Your task to perform on an android device: See recent photos Image 0: 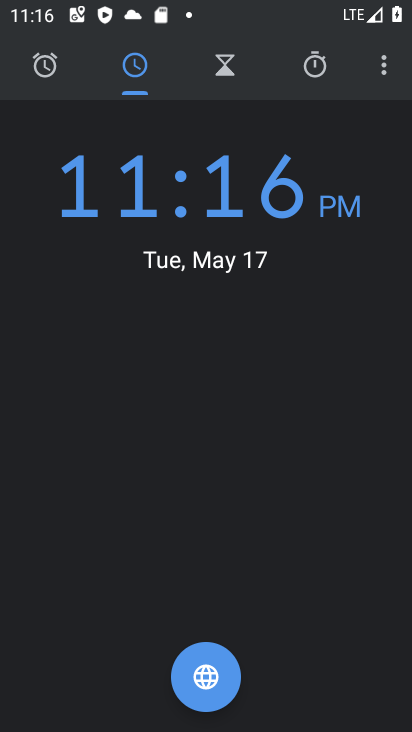
Step 0: press home button
Your task to perform on an android device: See recent photos Image 1: 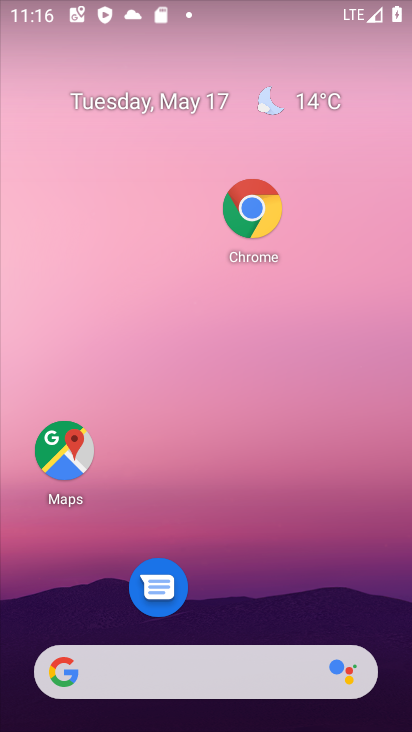
Step 1: drag from (279, 579) to (288, 131)
Your task to perform on an android device: See recent photos Image 2: 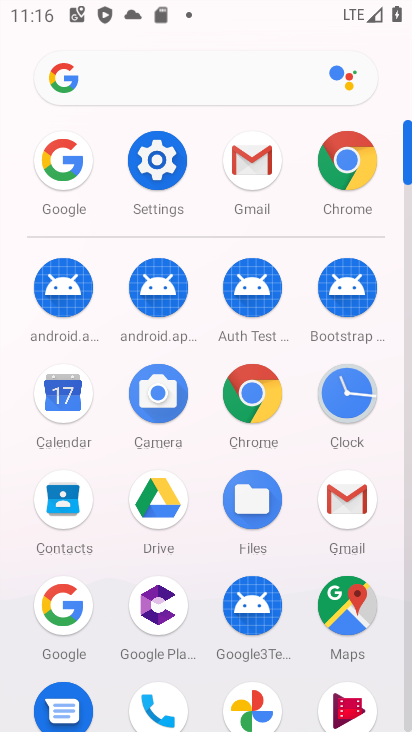
Step 2: click (260, 690)
Your task to perform on an android device: See recent photos Image 3: 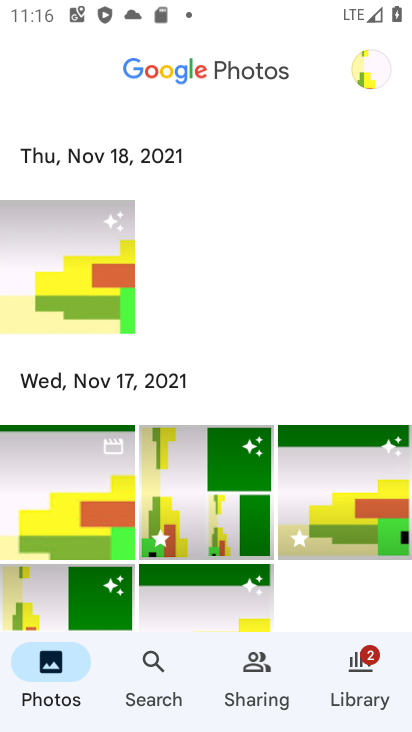
Step 3: click (151, 678)
Your task to perform on an android device: See recent photos Image 4: 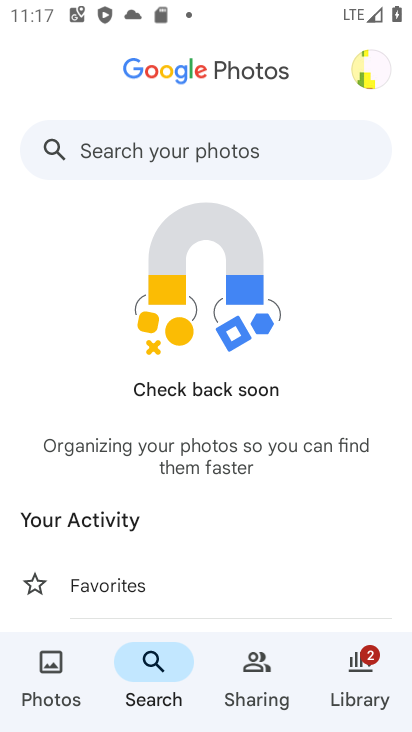
Step 4: drag from (199, 539) to (238, 263)
Your task to perform on an android device: See recent photos Image 5: 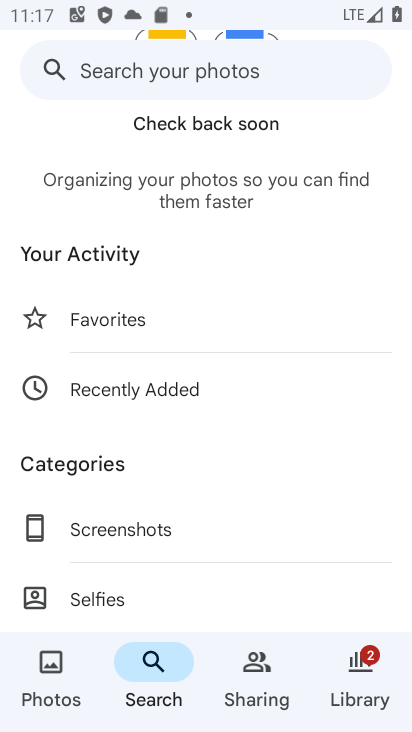
Step 5: click (166, 379)
Your task to perform on an android device: See recent photos Image 6: 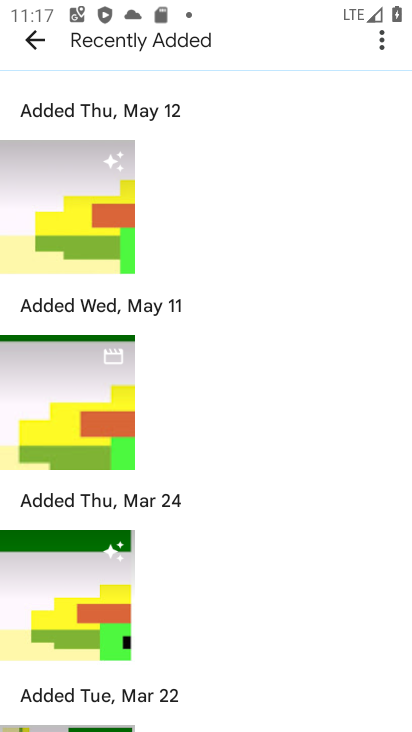
Step 6: task complete